Your task to perform on an android device: Search for vegetarian restaurants on Maps Image 0: 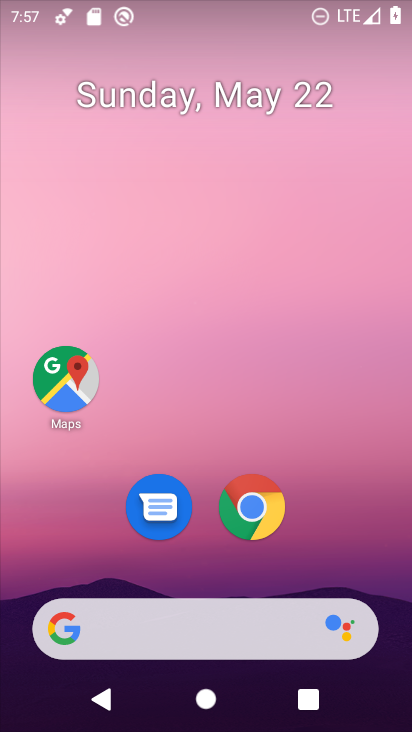
Step 0: click (82, 370)
Your task to perform on an android device: Search for vegetarian restaurants on Maps Image 1: 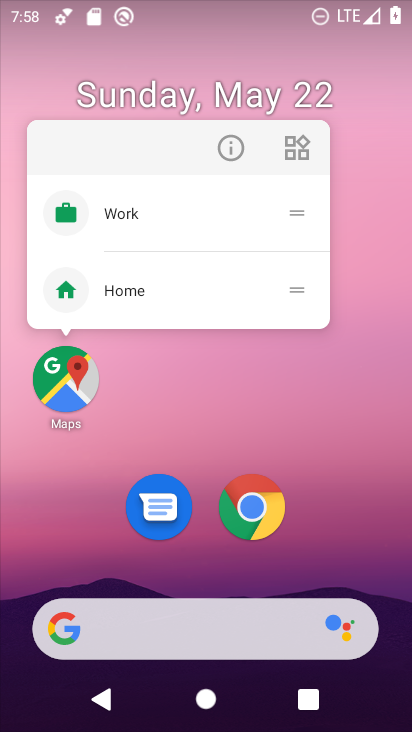
Step 1: click (49, 385)
Your task to perform on an android device: Search for vegetarian restaurants on Maps Image 2: 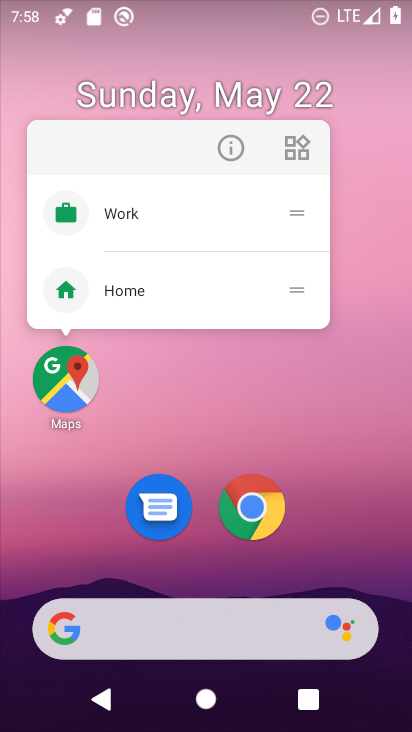
Step 2: click (52, 384)
Your task to perform on an android device: Search for vegetarian restaurants on Maps Image 3: 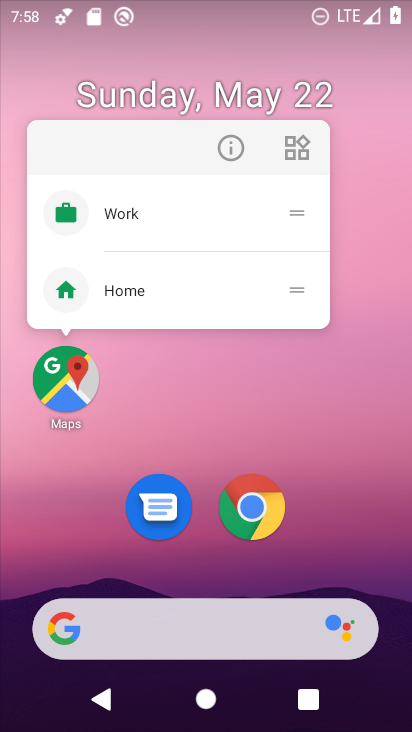
Step 3: click (52, 384)
Your task to perform on an android device: Search for vegetarian restaurants on Maps Image 4: 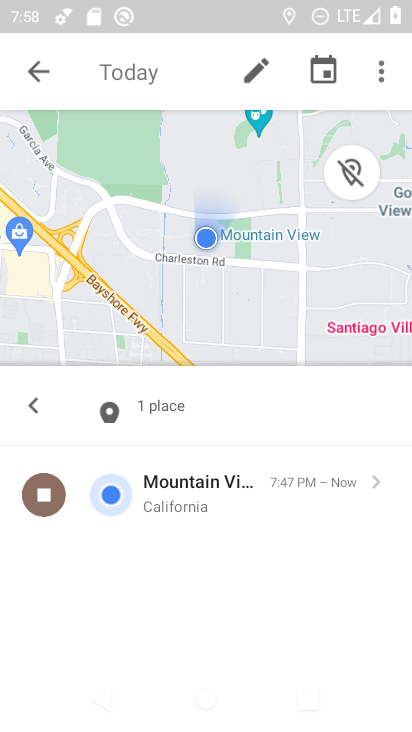
Step 4: click (37, 65)
Your task to perform on an android device: Search for vegetarian restaurants on Maps Image 5: 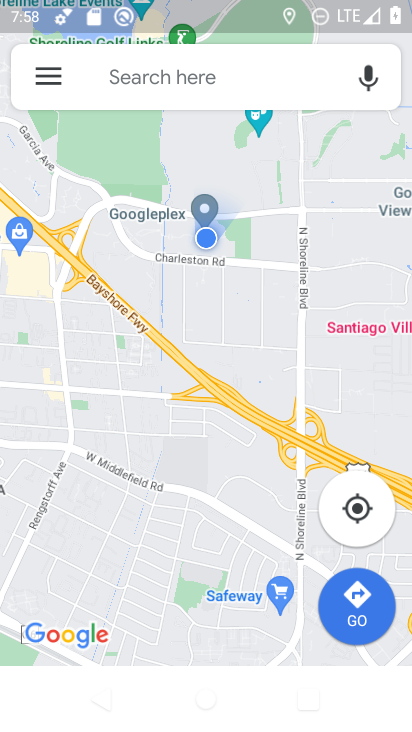
Step 5: click (141, 73)
Your task to perform on an android device: Search for vegetarian restaurants on Maps Image 6: 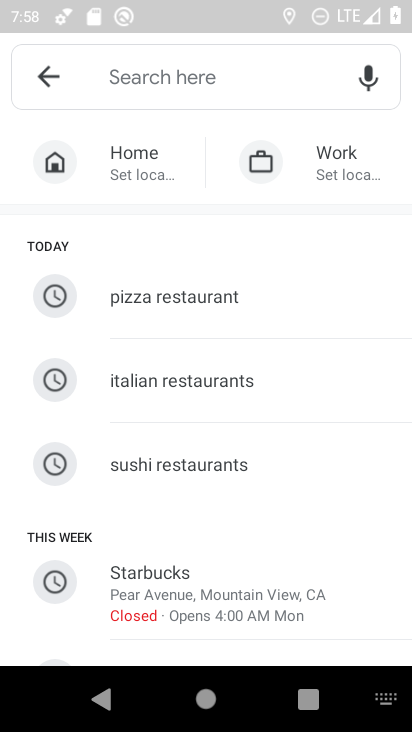
Step 6: drag from (213, 568) to (190, 68)
Your task to perform on an android device: Search for vegetarian restaurants on Maps Image 7: 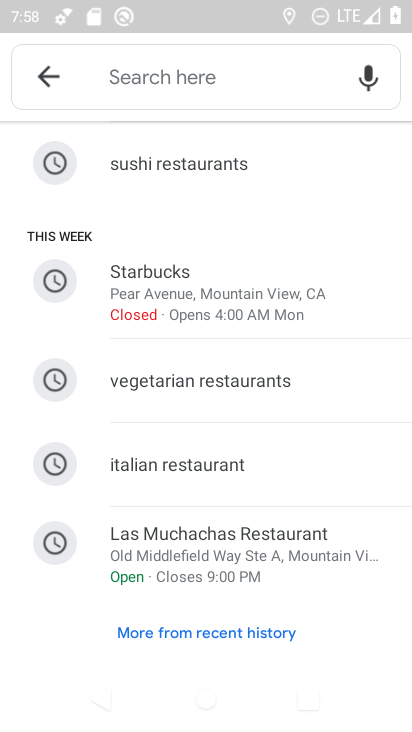
Step 7: click (235, 388)
Your task to perform on an android device: Search for vegetarian restaurants on Maps Image 8: 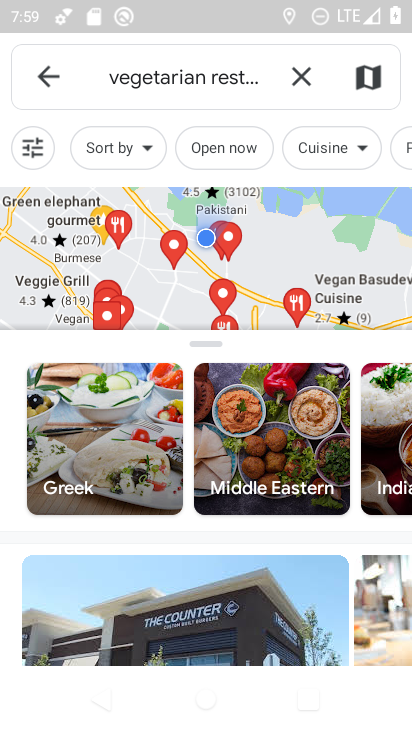
Step 8: task complete